Your task to perform on an android device: Open Chrome and go to the settings page Image 0: 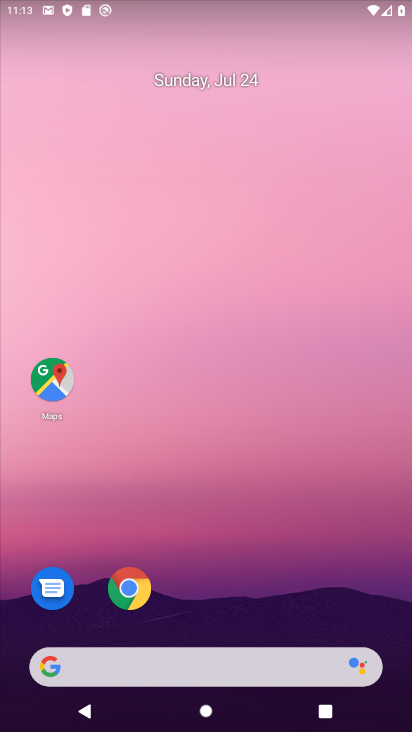
Step 0: click (122, 603)
Your task to perform on an android device: Open Chrome and go to the settings page Image 1: 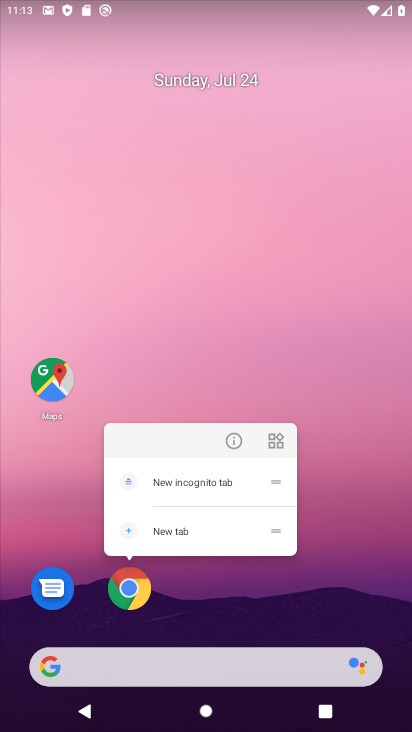
Step 1: click (134, 588)
Your task to perform on an android device: Open Chrome and go to the settings page Image 2: 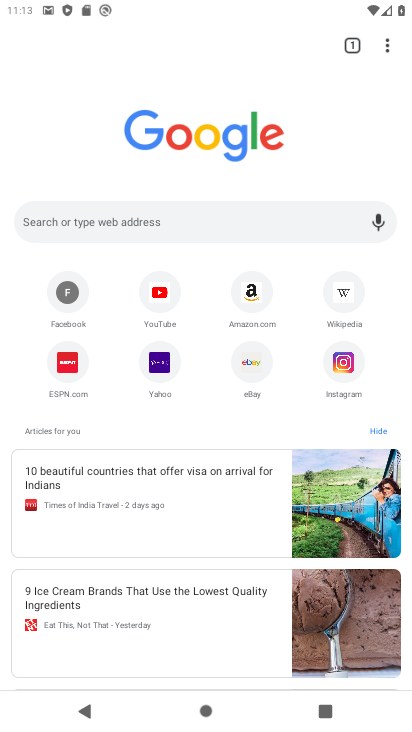
Step 2: click (394, 46)
Your task to perform on an android device: Open Chrome and go to the settings page Image 3: 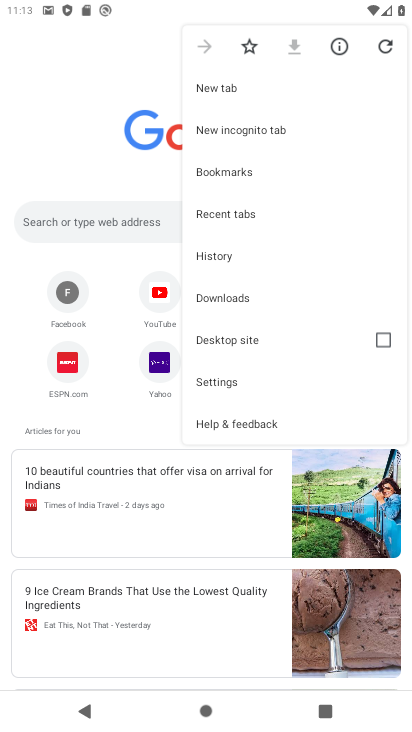
Step 3: click (239, 379)
Your task to perform on an android device: Open Chrome and go to the settings page Image 4: 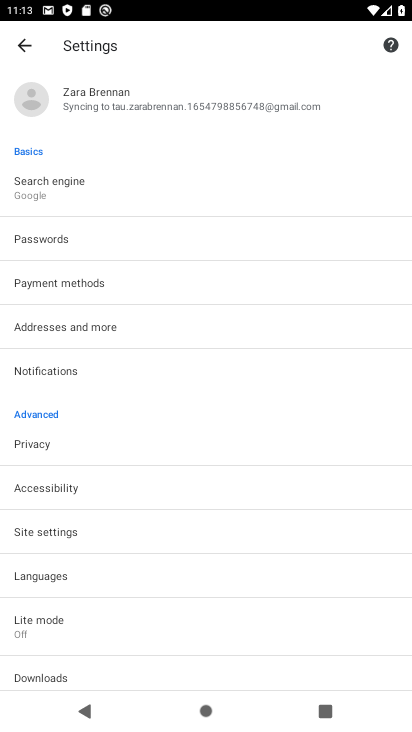
Step 4: task complete